Your task to perform on an android device: turn on data saver in the chrome app Image 0: 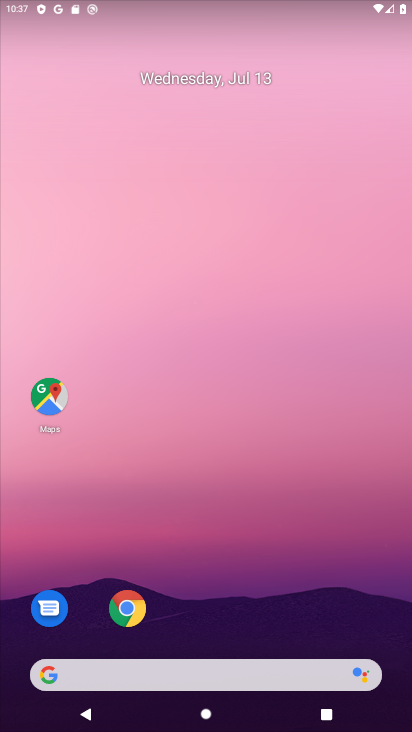
Step 0: click (128, 609)
Your task to perform on an android device: turn on data saver in the chrome app Image 1: 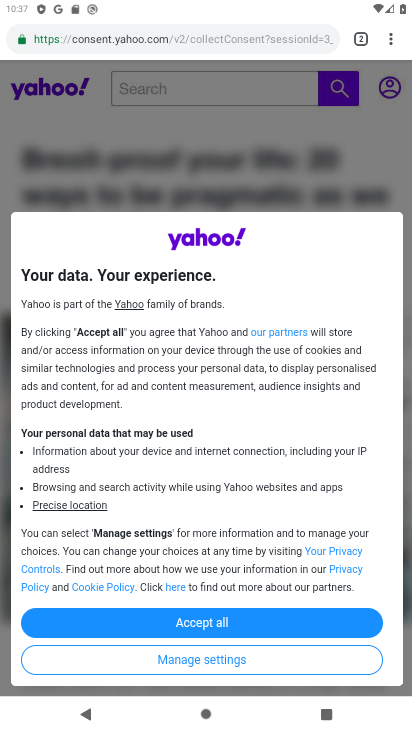
Step 1: click (388, 40)
Your task to perform on an android device: turn on data saver in the chrome app Image 2: 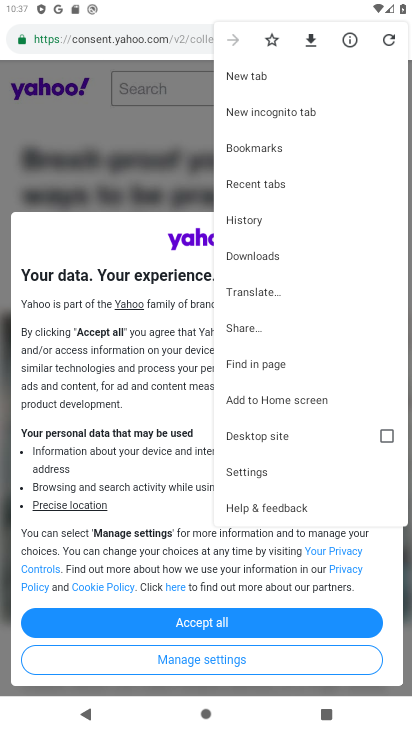
Step 2: click (276, 468)
Your task to perform on an android device: turn on data saver in the chrome app Image 3: 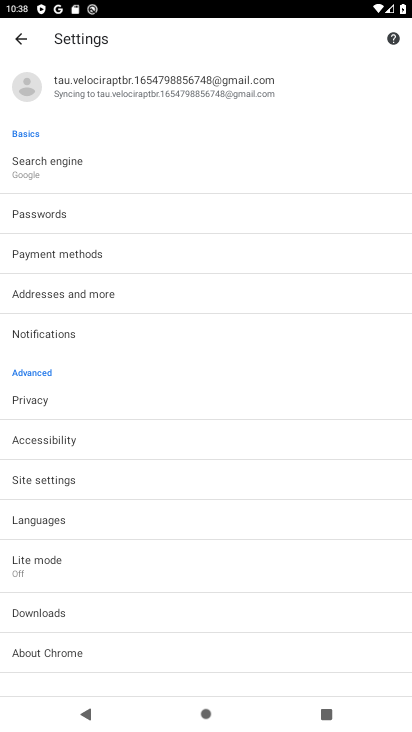
Step 3: click (75, 560)
Your task to perform on an android device: turn on data saver in the chrome app Image 4: 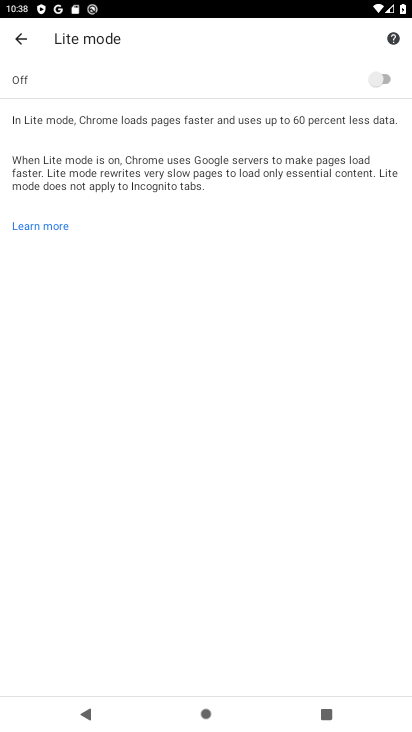
Step 4: click (382, 88)
Your task to perform on an android device: turn on data saver in the chrome app Image 5: 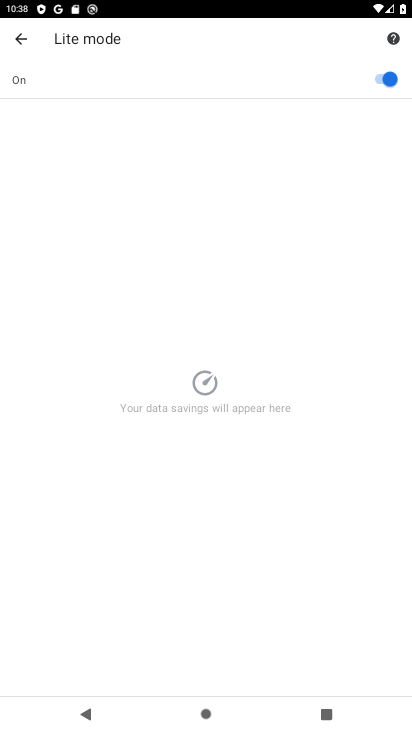
Step 5: task complete